Your task to perform on an android device: allow cookies in the chrome app Image 0: 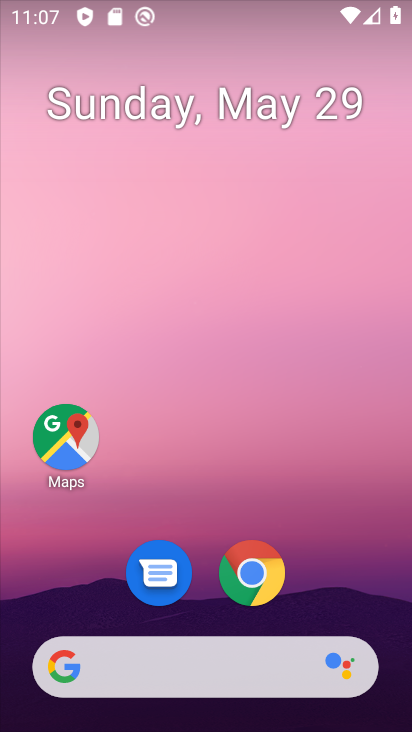
Step 0: drag from (222, 646) to (232, 1)
Your task to perform on an android device: allow cookies in the chrome app Image 1: 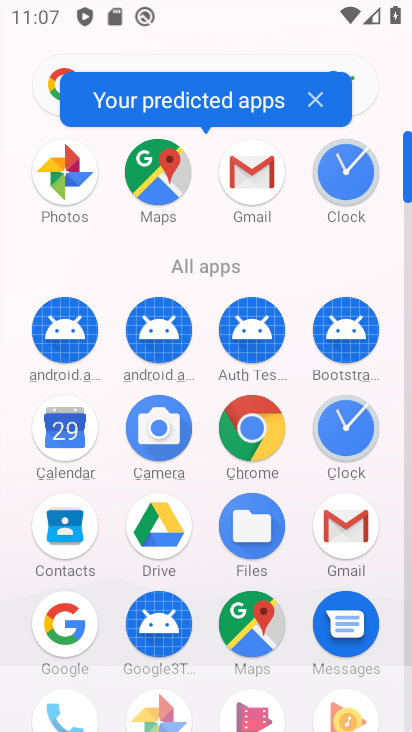
Step 1: click (250, 410)
Your task to perform on an android device: allow cookies in the chrome app Image 2: 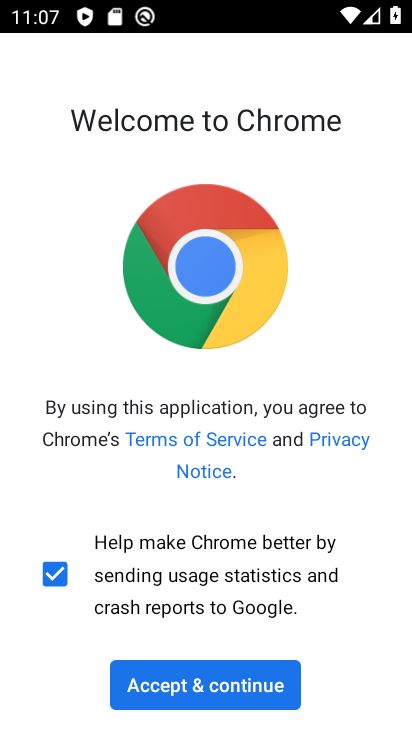
Step 2: click (159, 671)
Your task to perform on an android device: allow cookies in the chrome app Image 3: 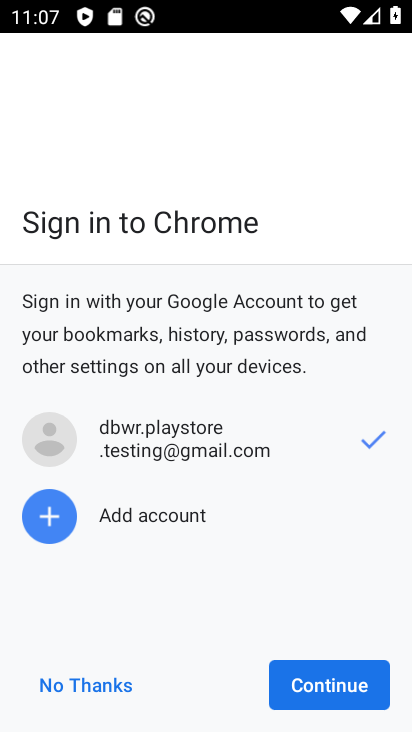
Step 3: click (119, 691)
Your task to perform on an android device: allow cookies in the chrome app Image 4: 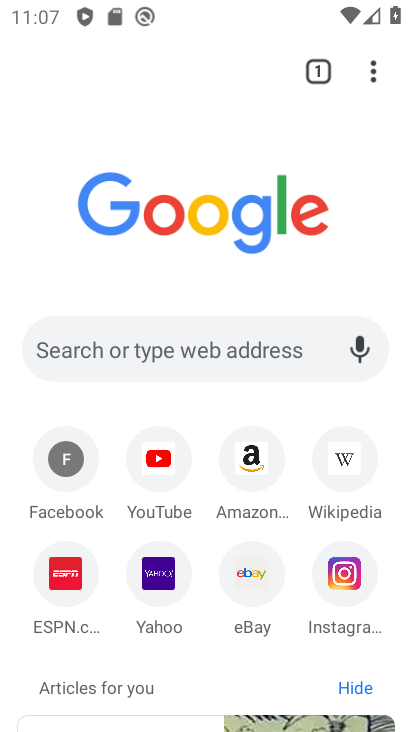
Step 4: drag from (376, 69) to (186, 596)
Your task to perform on an android device: allow cookies in the chrome app Image 5: 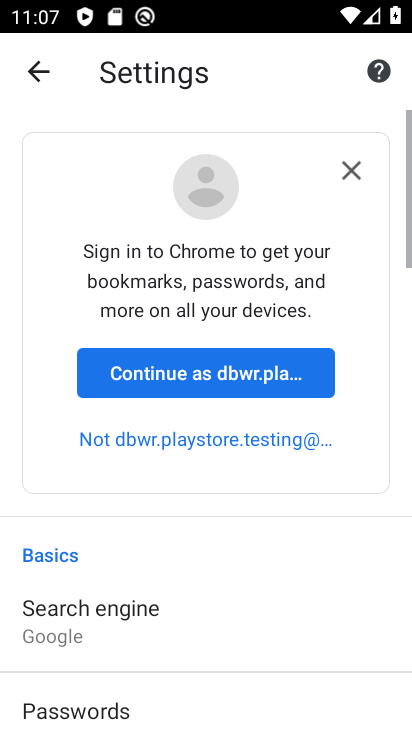
Step 5: drag from (201, 664) to (253, 88)
Your task to perform on an android device: allow cookies in the chrome app Image 6: 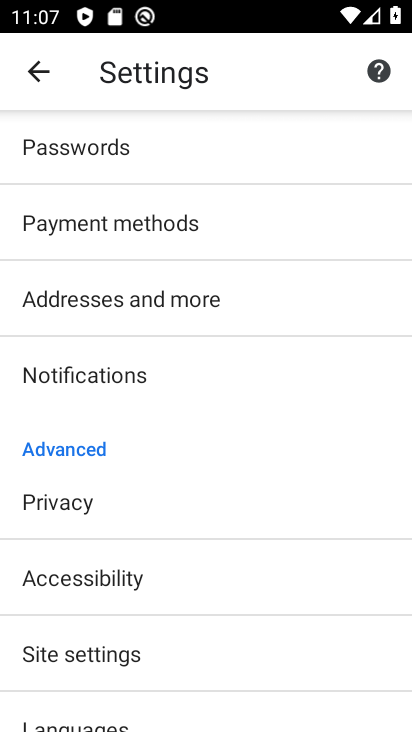
Step 6: click (174, 525)
Your task to perform on an android device: allow cookies in the chrome app Image 7: 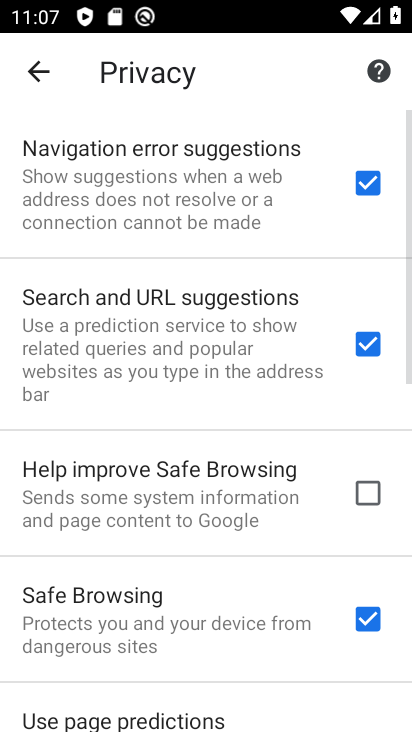
Step 7: drag from (204, 694) to (274, 199)
Your task to perform on an android device: allow cookies in the chrome app Image 8: 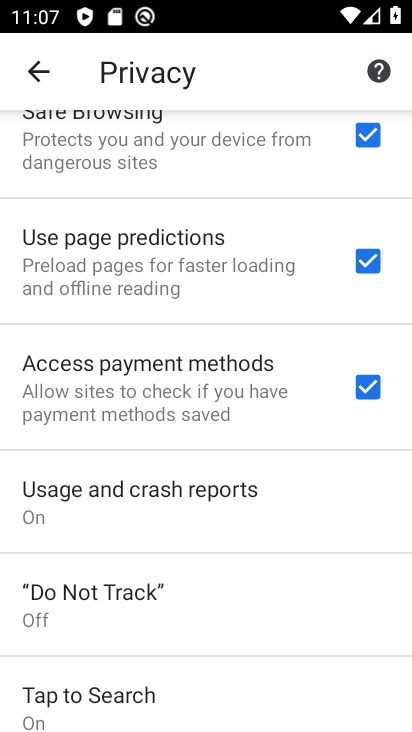
Step 8: drag from (168, 651) to (295, 43)
Your task to perform on an android device: allow cookies in the chrome app Image 9: 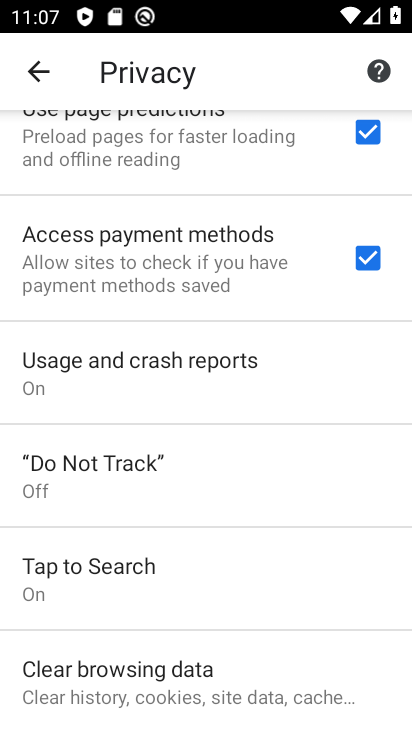
Step 9: click (171, 675)
Your task to perform on an android device: allow cookies in the chrome app Image 10: 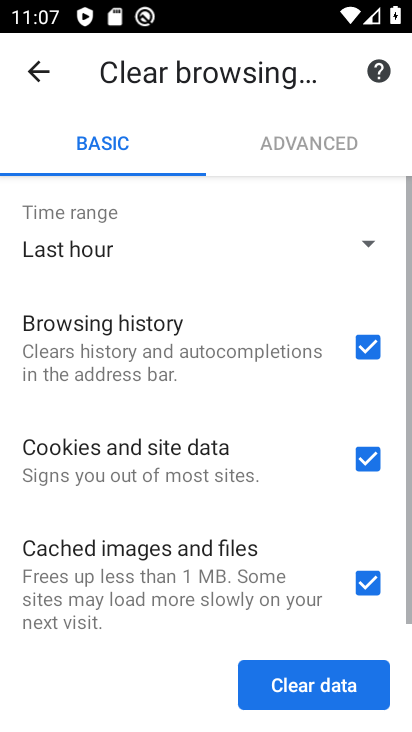
Step 10: click (302, 696)
Your task to perform on an android device: allow cookies in the chrome app Image 11: 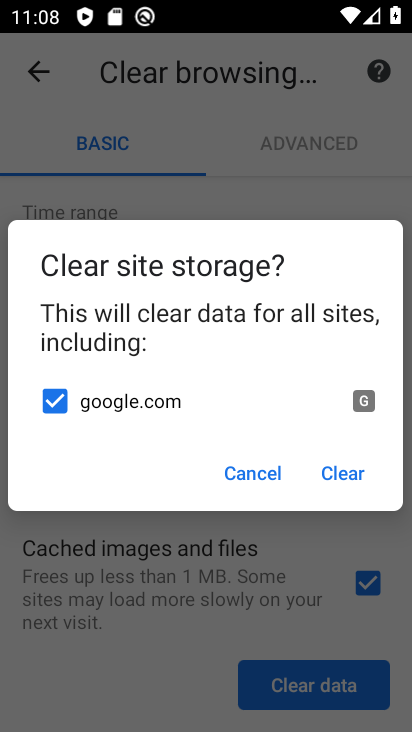
Step 11: click (338, 474)
Your task to perform on an android device: allow cookies in the chrome app Image 12: 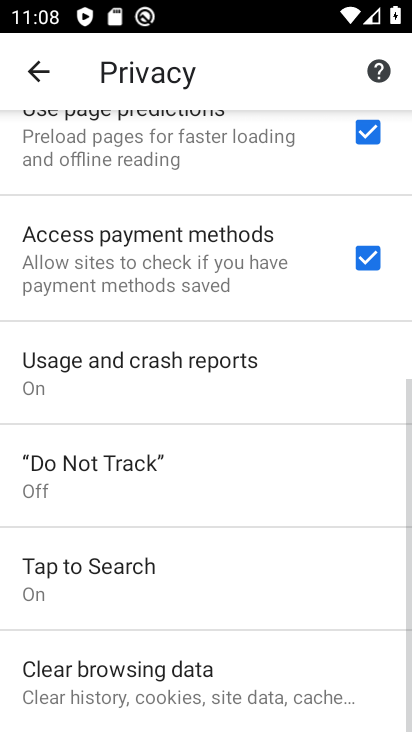
Step 12: task complete